Your task to perform on an android device: turn on airplane mode Image 0: 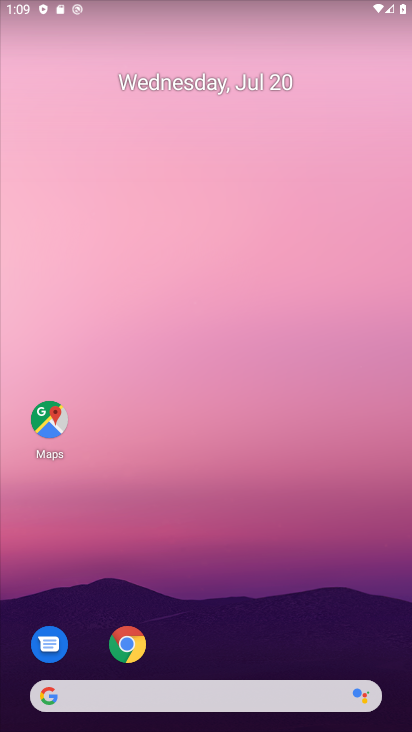
Step 0: press home button
Your task to perform on an android device: turn on airplane mode Image 1: 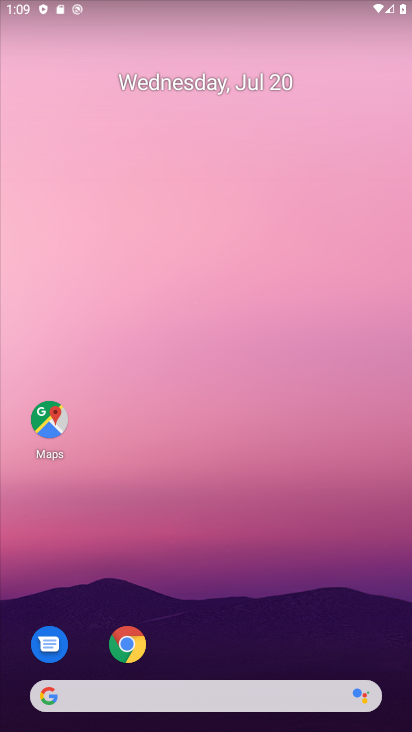
Step 1: drag from (315, 5) to (314, 342)
Your task to perform on an android device: turn on airplane mode Image 2: 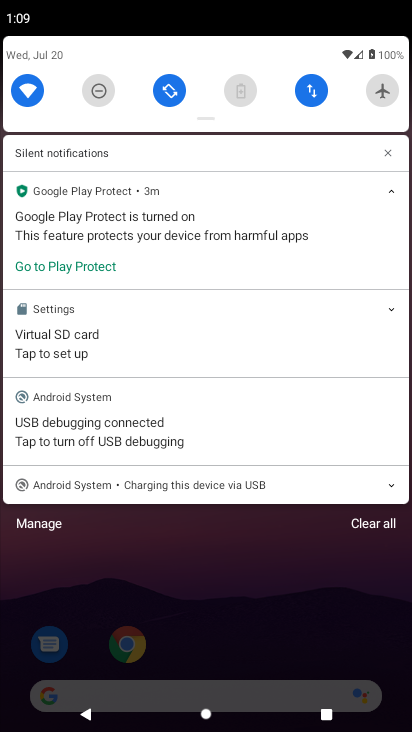
Step 2: click (380, 88)
Your task to perform on an android device: turn on airplane mode Image 3: 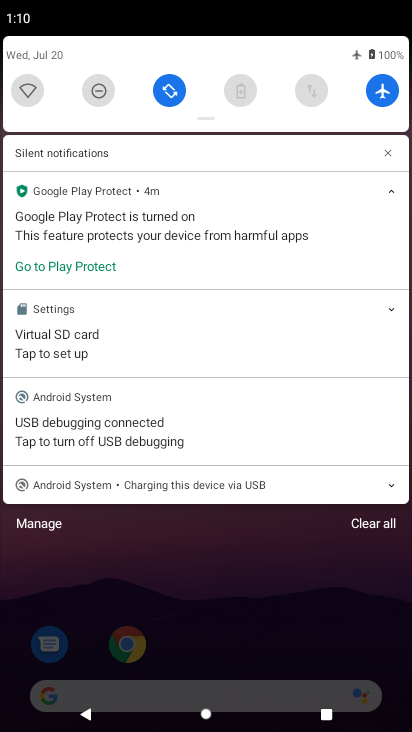
Step 3: task complete